Your task to perform on an android device: install app "Truecaller" Image 0: 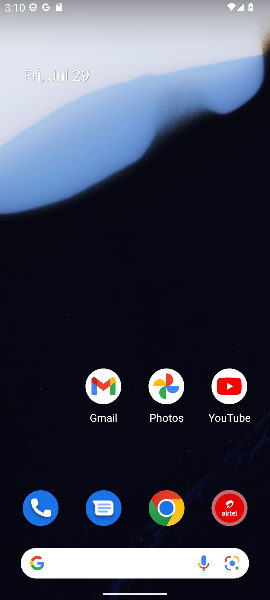
Step 0: drag from (205, 465) to (104, 35)
Your task to perform on an android device: install app "Truecaller" Image 1: 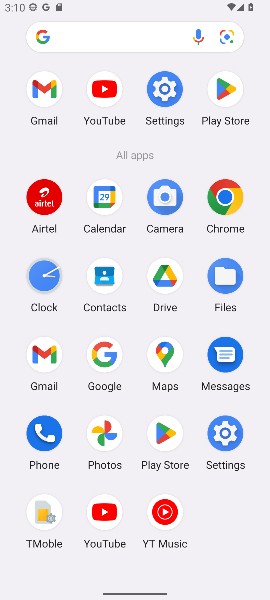
Step 1: click (168, 437)
Your task to perform on an android device: install app "Truecaller" Image 2: 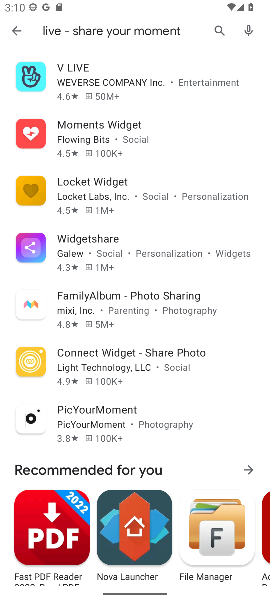
Step 2: press back button
Your task to perform on an android device: install app "Truecaller" Image 3: 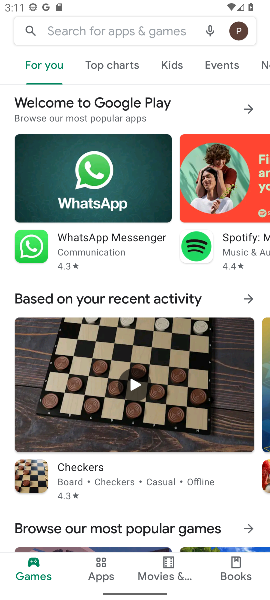
Step 3: type "Truecaller"
Your task to perform on an android device: install app "Truecaller" Image 4: 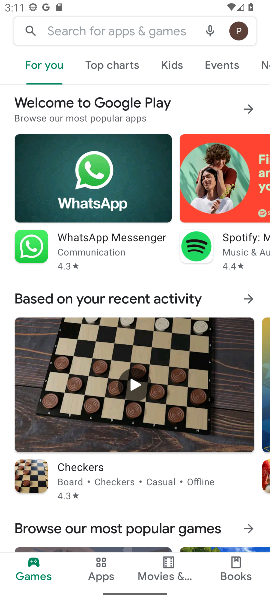
Step 4: click (75, 25)
Your task to perform on an android device: install app "Truecaller" Image 5: 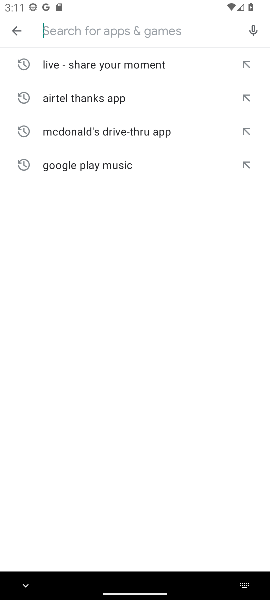
Step 5: type "Truecaller"
Your task to perform on an android device: install app "Truecaller" Image 6: 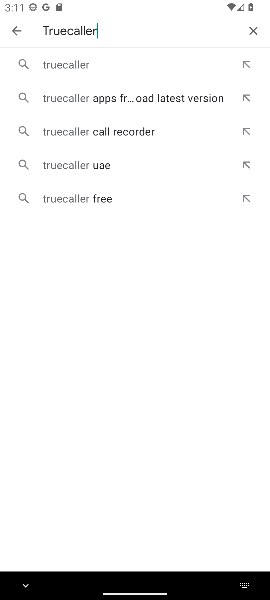
Step 6: click (70, 68)
Your task to perform on an android device: install app "Truecaller" Image 7: 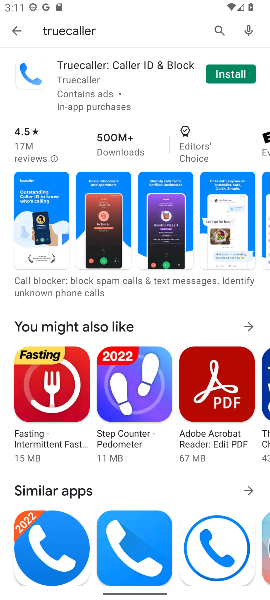
Step 7: click (242, 69)
Your task to perform on an android device: install app "Truecaller" Image 8: 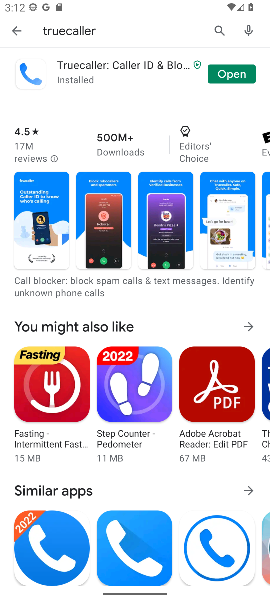
Step 8: task complete